Your task to perform on an android device: change keyboard looks Image 0: 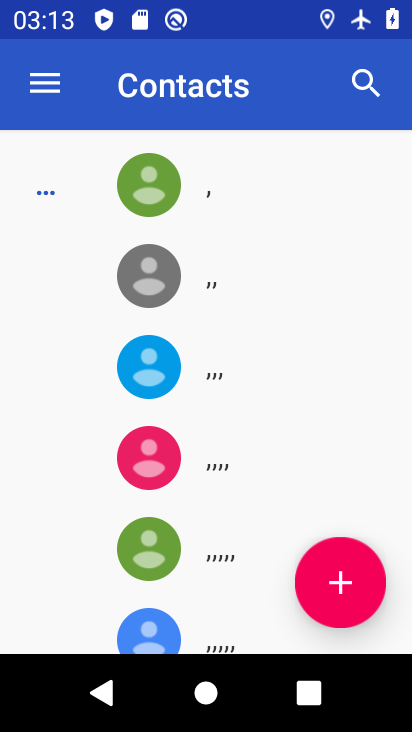
Step 0: press home button
Your task to perform on an android device: change keyboard looks Image 1: 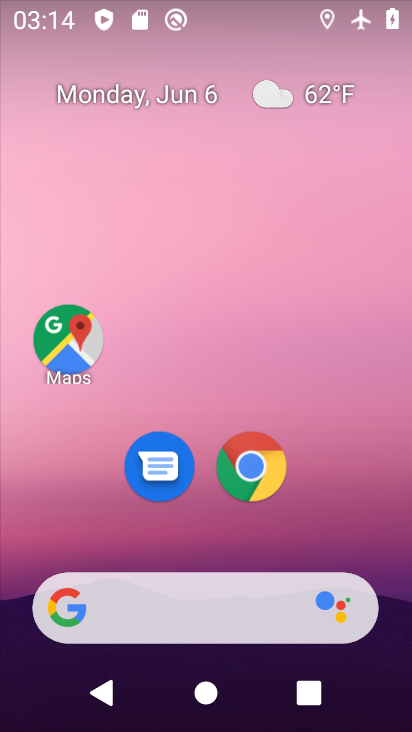
Step 1: click (260, 464)
Your task to perform on an android device: change keyboard looks Image 2: 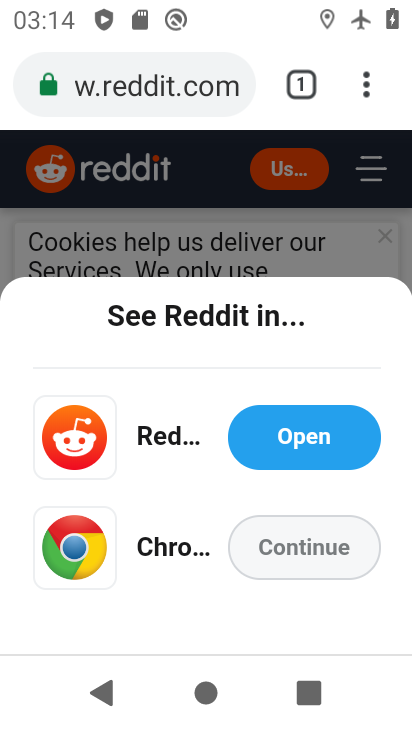
Step 2: drag from (372, 82) to (238, 542)
Your task to perform on an android device: change keyboard looks Image 3: 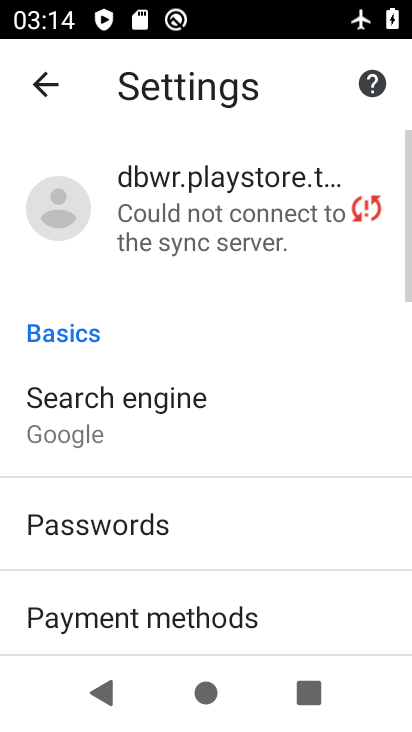
Step 3: drag from (235, 534) to (330, 42)
Your task to perform on an android device: change keyboard looks Image 4: 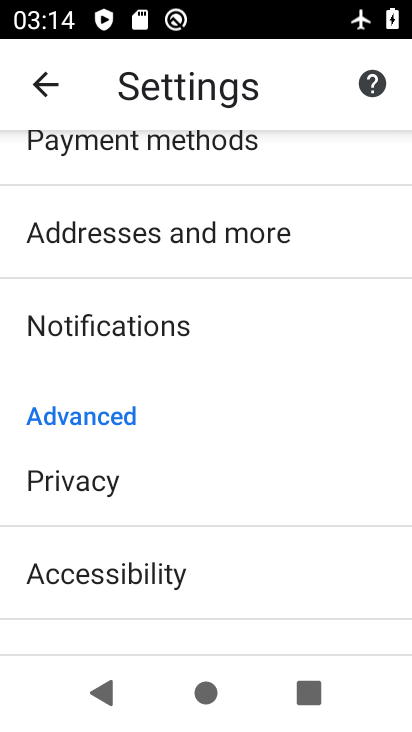
Step 4: drag from (278, 230) to (326, 92)
Your task to perform on an android device: change keyboard looks Image 5: 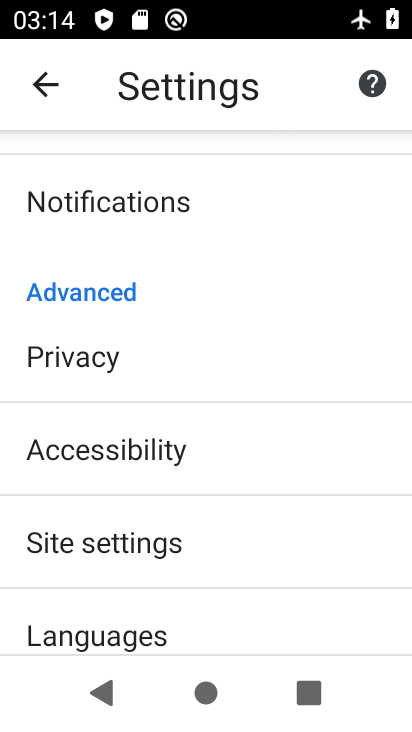
Step 5: drag from (179, 556) to (268, 220)
Your task to perform on an android device: change keyboard looks Image 6: 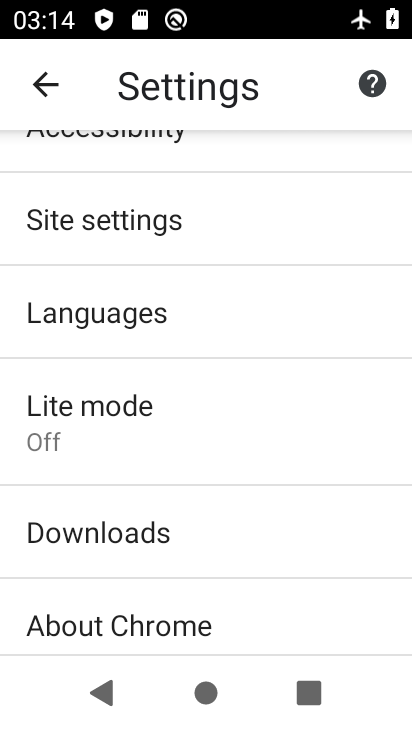
Step 6: drag from (234, 598) to (223, 505)
Your task to perform on an android device: change keyboard looks Image 7: 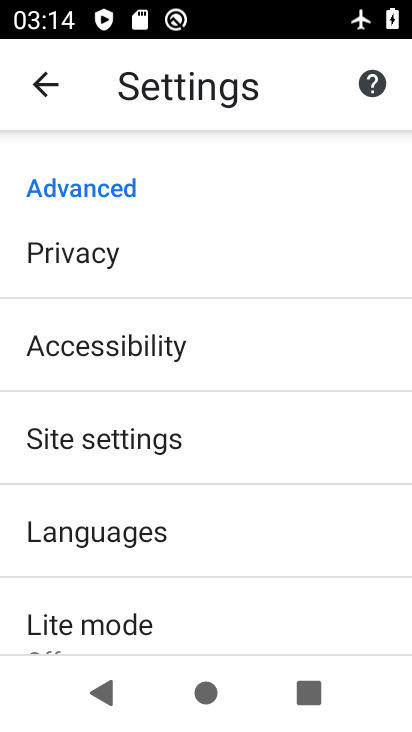
Step 7: press home button
Your task to perform on an android device: change keyboard looks Image 8: 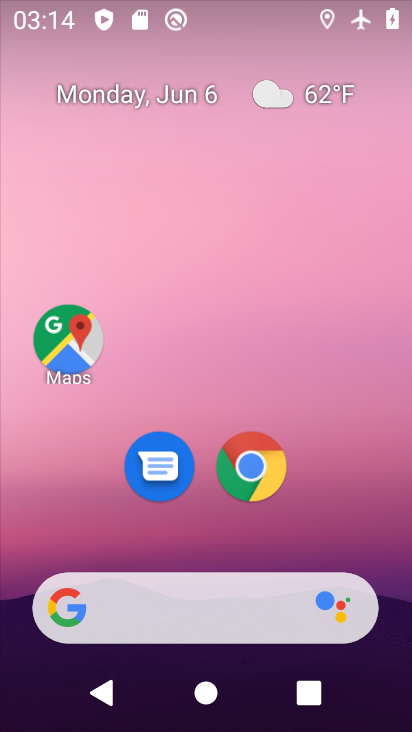
Step 8: drag from (319, 561) to (342, 118)
Your task to perform on an android device: change keyboard looks Image 9: 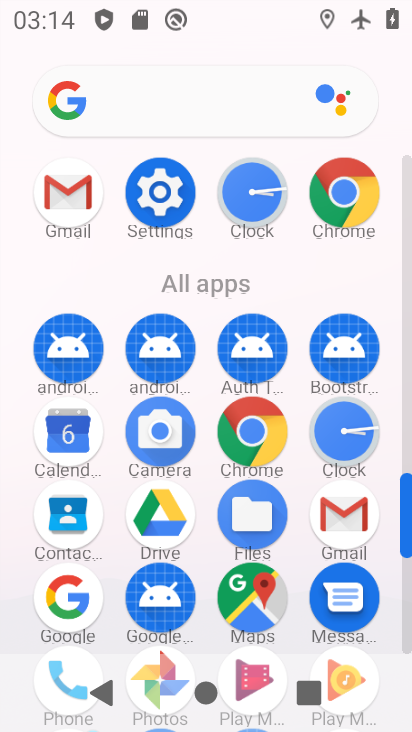
Step 9: click (174, 194)
Your task to perform on an android device: change keyboard looks Image 10: 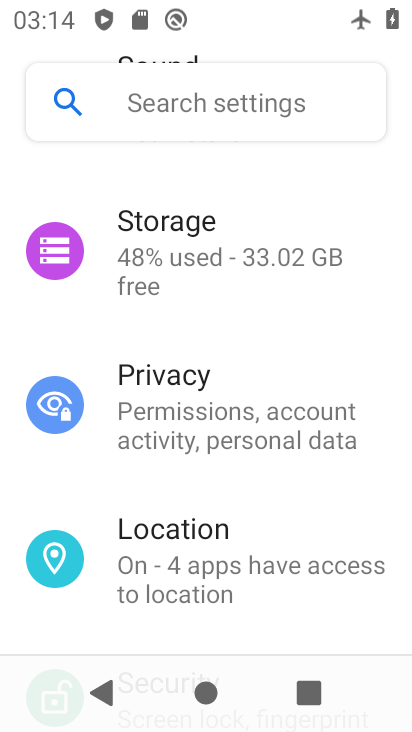
Step 10: drag from (268, 534) to (293, 142)
Your task to perform on an android device: change keyboard looks Image 11: 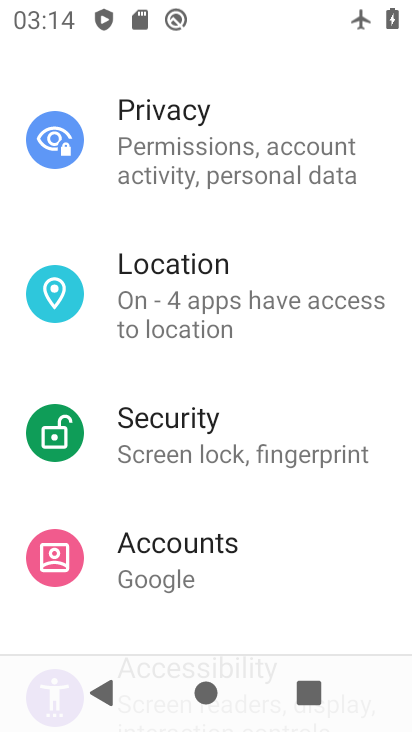
Step 11: drag from (224, 524) to (274, 162)
Your task to perform on an android device: change keyboard looks Image 12: 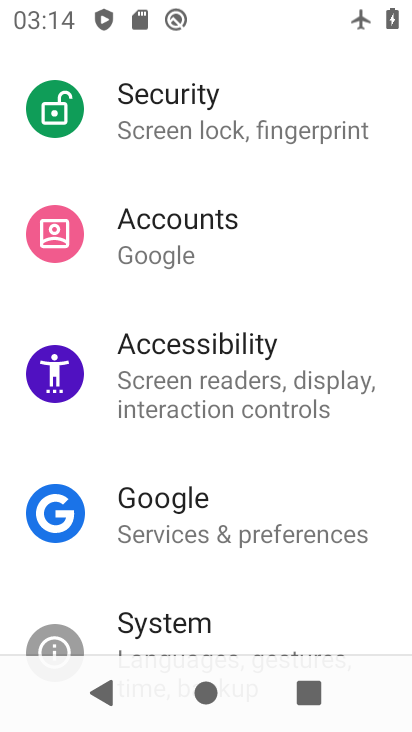
Step 12: drag from (238, 470) to (365, 52)
Your task to perform on an android device: change keyboard looks Image 13: 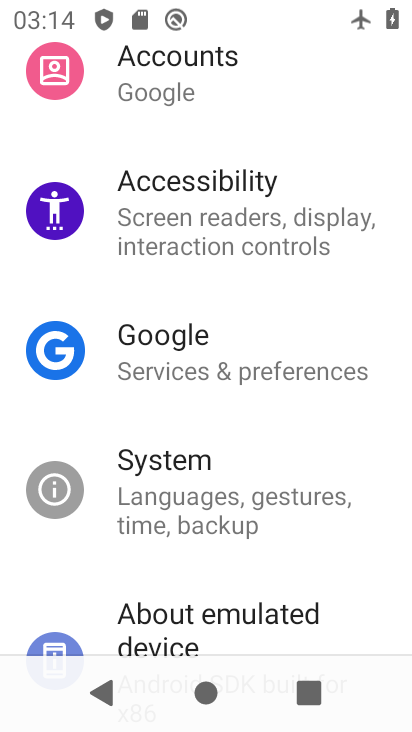
Step 13: drag from (275, 409) to (357, 13)
Your task to perform on an android device: change keyboard looks Image 14: 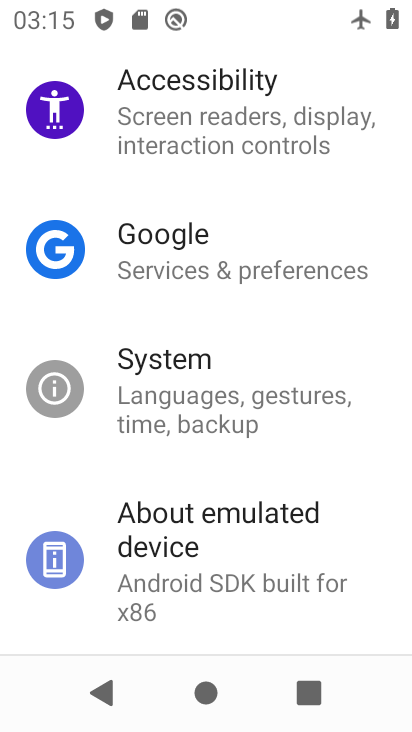
Step 14: drag from (257, 460) to (318, 29)
Your task to perform on an android device: change keyboard looks Image 15: 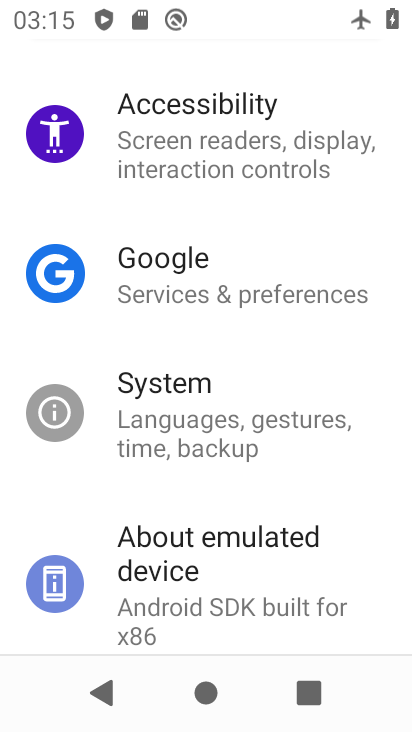
Step 15: drag from (235, 522) to (266, 0)
Your task to perform on an android device: change keyboard looks Image 16: 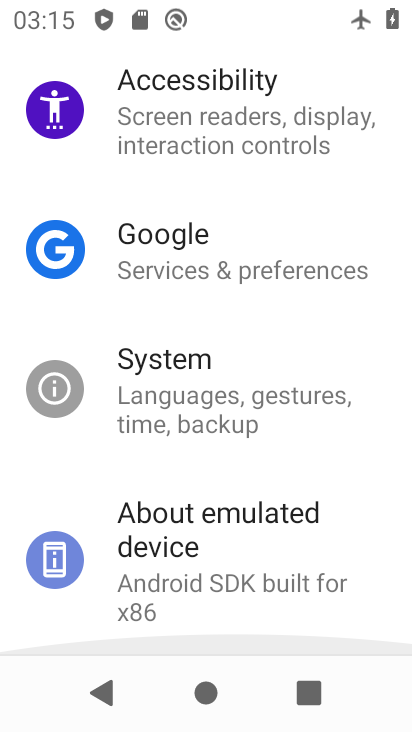
Step 16: drag from (214, 148) to (236, 660)
Your task to perform on an android device: change keyboard looks Image 17: 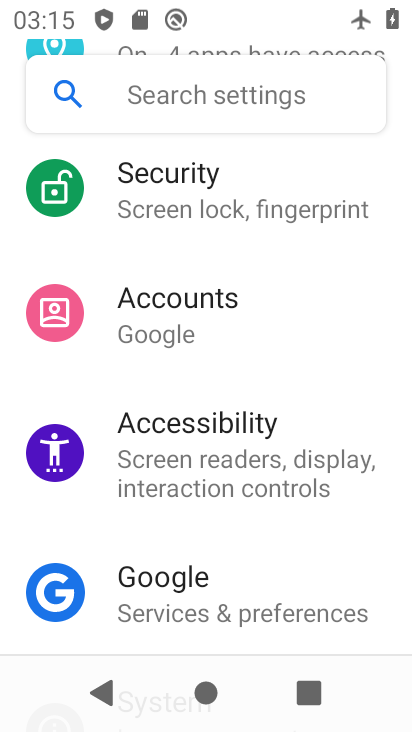
Step 17: drag from (260, 268) to (274, 691)
Your task to perform on an android device: change keyboard looks Image 18: 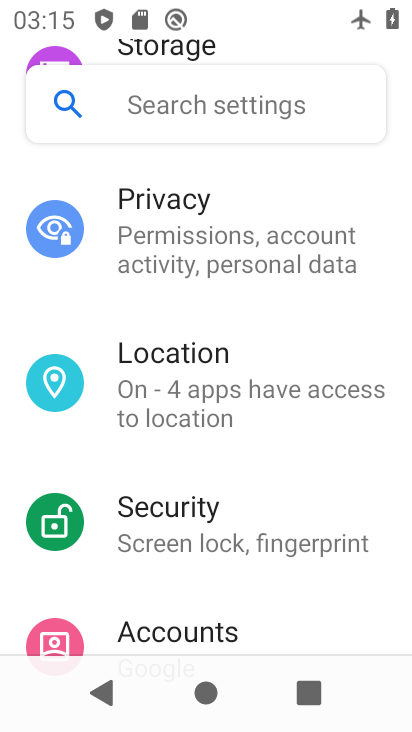
Step 18: drag from (259, 257) to (256, 620)
Your task to perform on an android device: change keyboard looks Image 19: 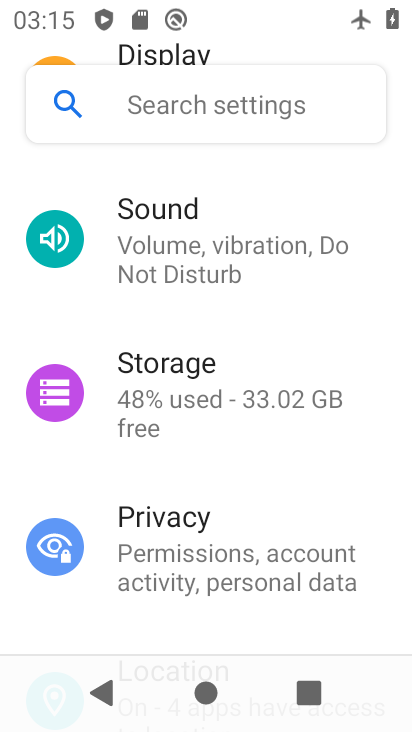
Step 19: drag from (210, 196) to (220, 592)
Your task to perform on an android device: change keyboard looks Image 20: 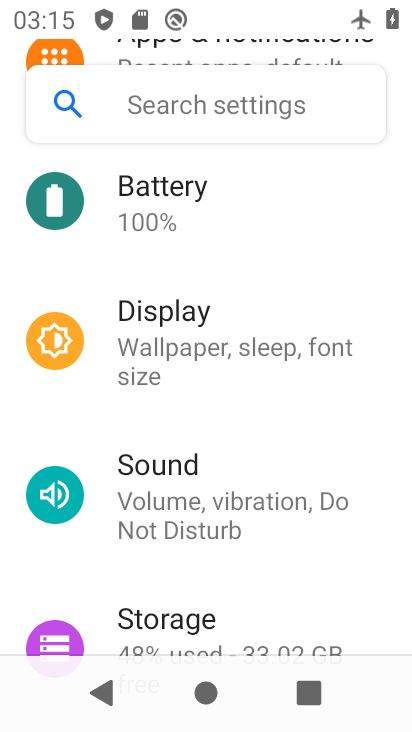
Step 20: drag from (250, 208) to (239, 661)
Your task to perform on an android device: change keyboard looks Image 21: 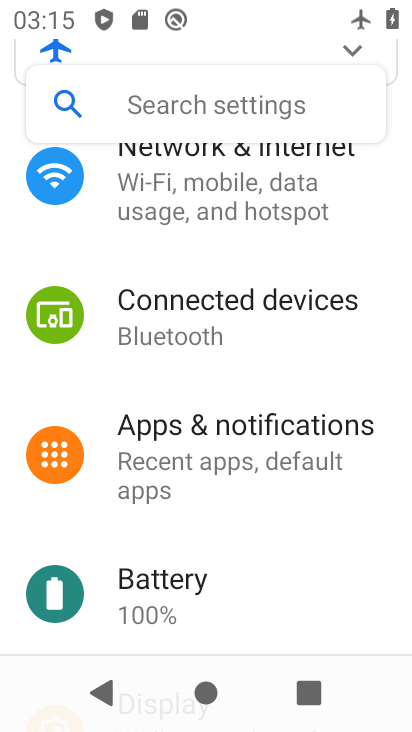
Step 21: drag from (205, 195) to (210, 563)
Your task to perform on an android device: change keyboard looks Image 22: 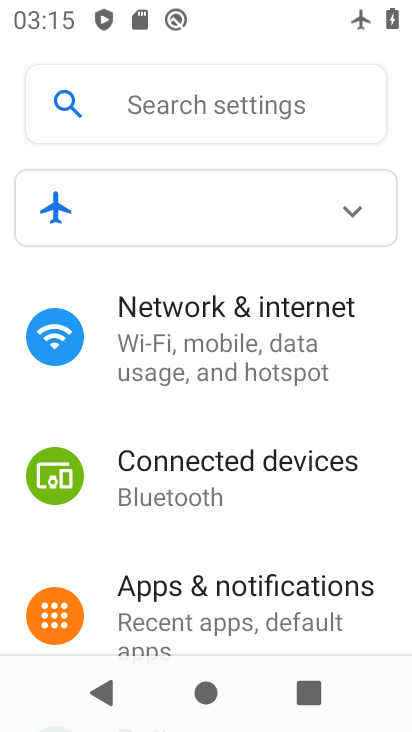
Step 22: drag from (177, 473) to (229, 5)
Your task to perform on an android device: change keyboard looks Image 23: 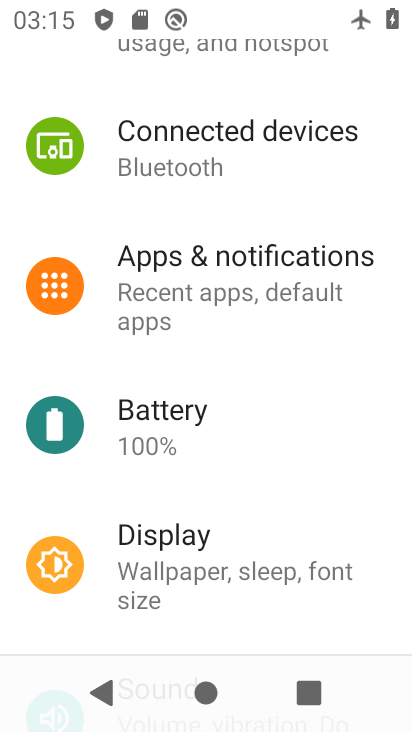
Step 23: drag from (184, 588) to (275, 5)
Your task to perform on an android device: change keyboard looks Image 24: 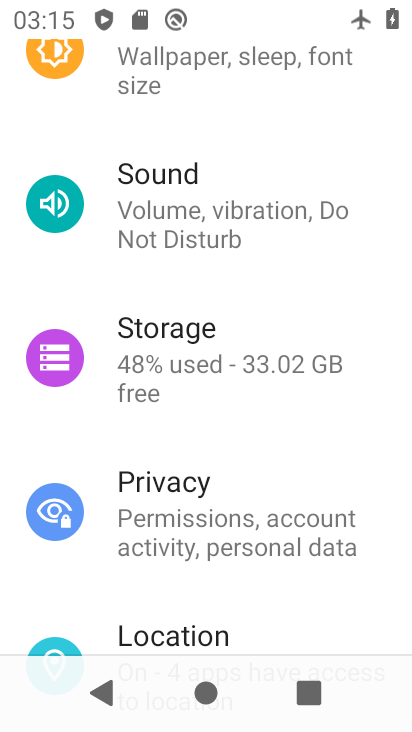
Step 24: drag from (132, 434) to (281, 9)
Your task to perform on an android device: change keyboard looks Image 25: 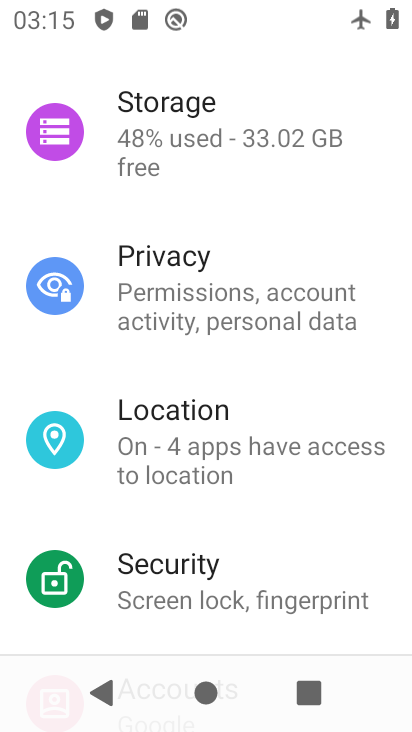
Step 25: drag from (207, 503) to (275, 90)
Your task to perform on an android device: change keyboard looks Image 26: 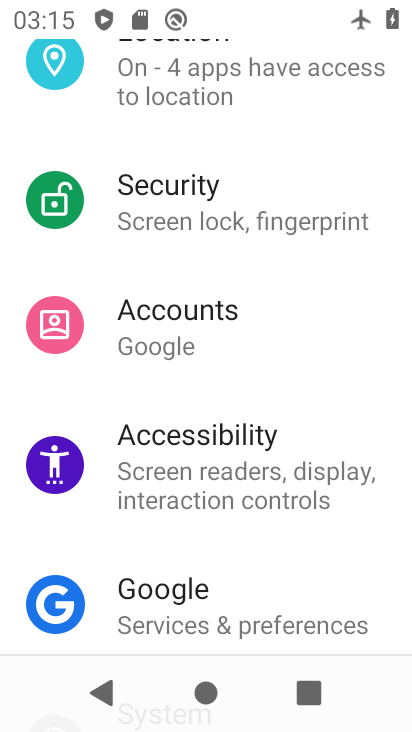
Step 26: drag from (175, 496) to (278, 33)
Your task to perform on an android device: change keyboard looks Image 27: 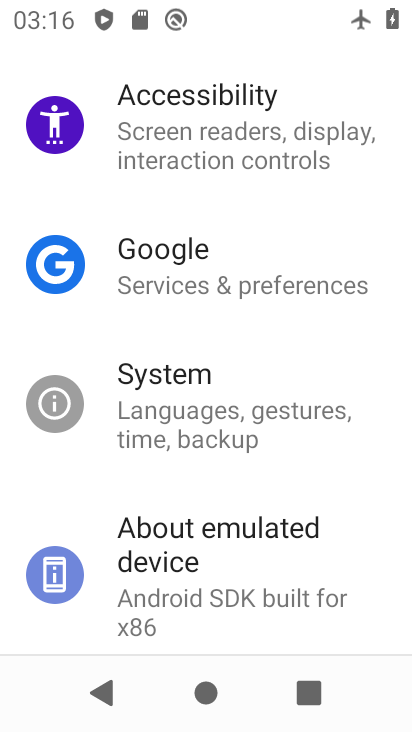
Step 27: click (194, 437)
Your task to perform on an android device: change keyboard looks Image 28: 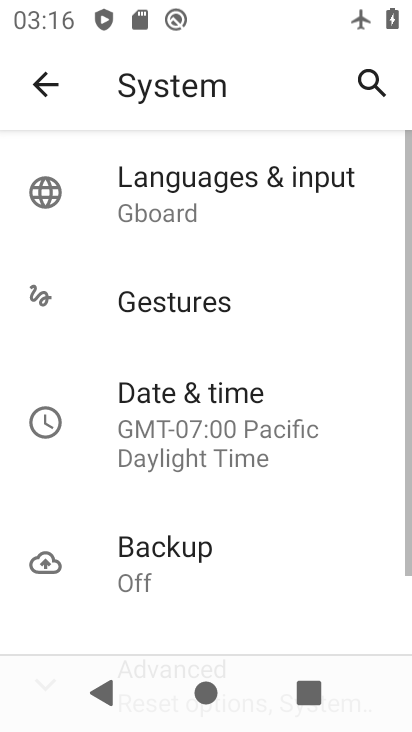
Step 28: click (188, 177)
Your task to perform on an android device: change keyboard looks Image 29: 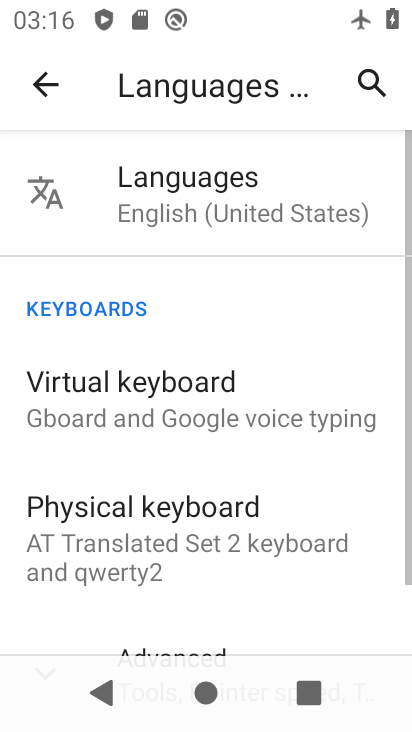
Step 29: click (174, 417)
Your task to perform on an android device: change keyboard looks Image 30: 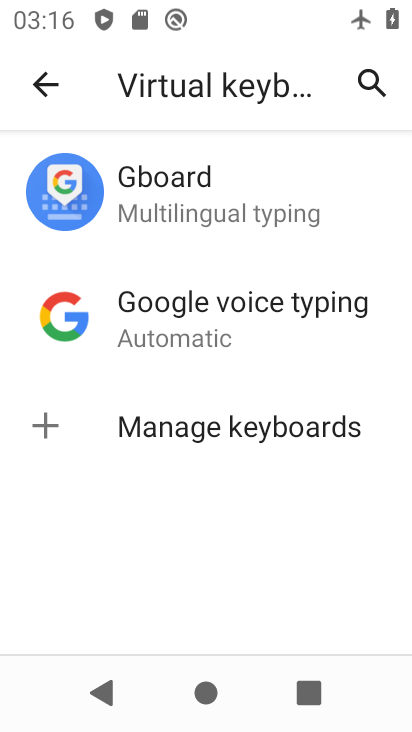
Step 30: click (201, 223)
Your task to perform on an android device: change keyboard looks Image 31: 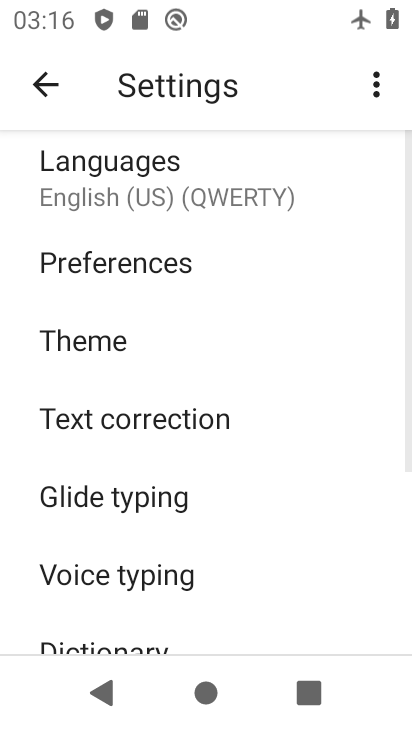
Step 31: click (91, 337)
Your task to perform on an android device: change keyboard looks Image 32: 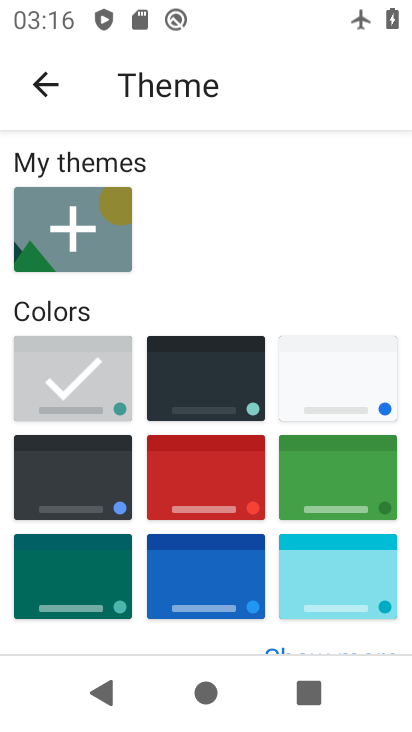
Step 32: click (334, 373)
Your task to perform on an android device: change keyboard looks Image 33: 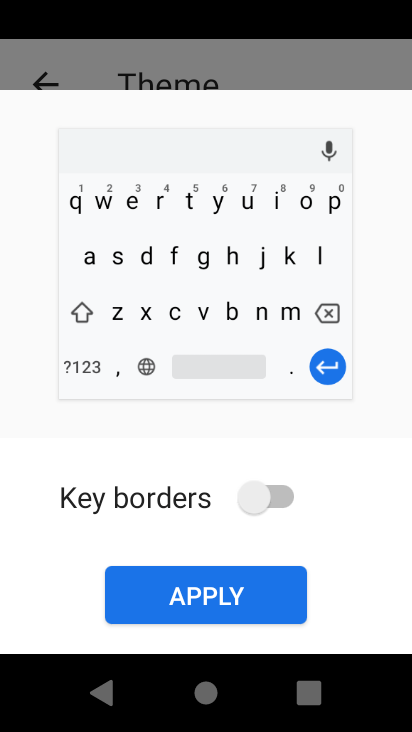
Step 33: click (264, 590)
Your task to perform on an android device: change keyboard looks Image 34: 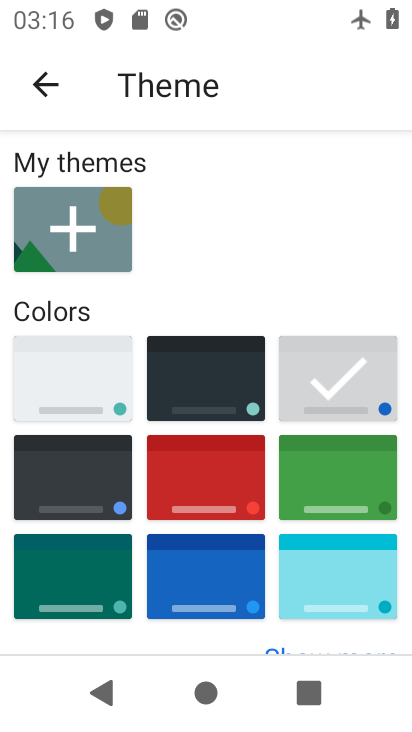
Step 34: task complete